Your task to perform on an android device: Open Google Chrome Image 0: 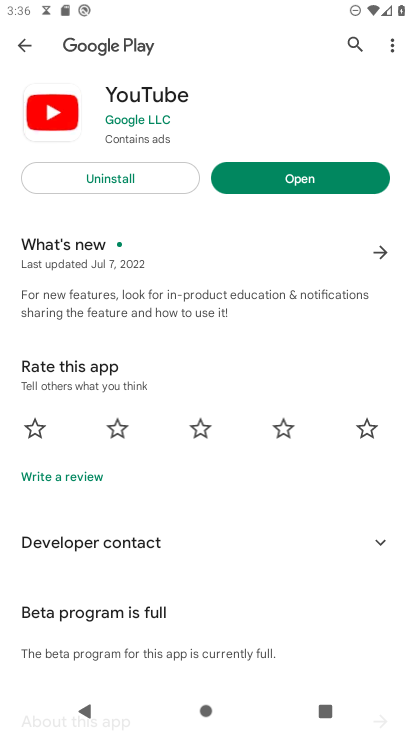
Step 0: press home button
Your task to perform on an android device: Open Google Chrome Image 1: 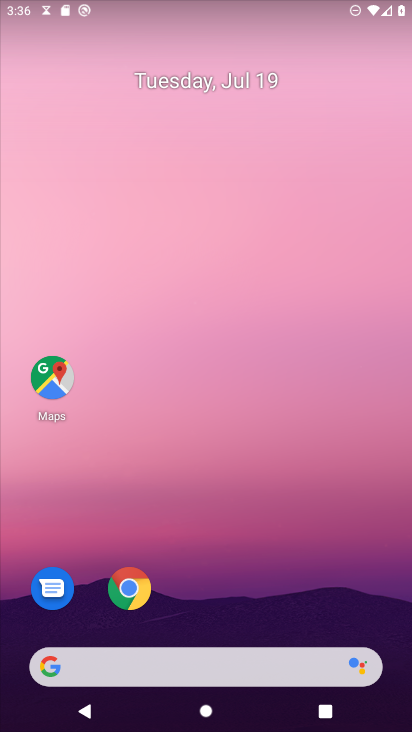
Step 1: click (133, 587)
Your task to perform on an android device: Open Google Chrome Image 2: 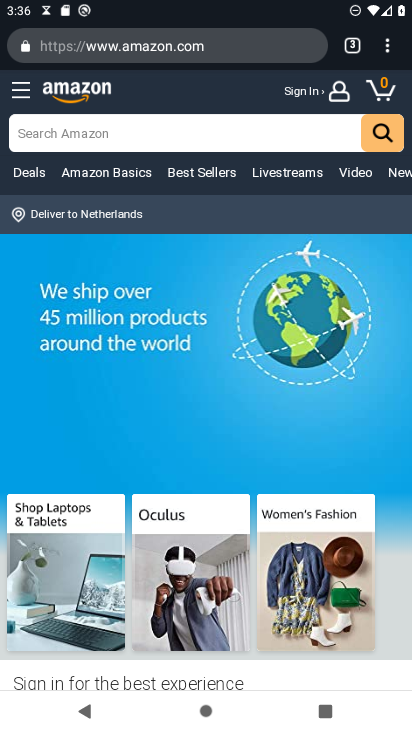
Step 2: task complete